Your task to perform on an android device: delete the emails in spam in the gmail app Image 0: 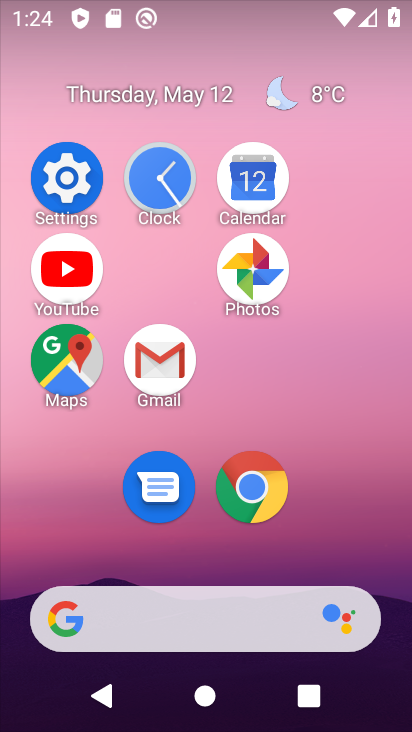
Step 0: click (150, 343)
Your task to perform on an android device: delete the emails in spam in the gmail app Image 1: 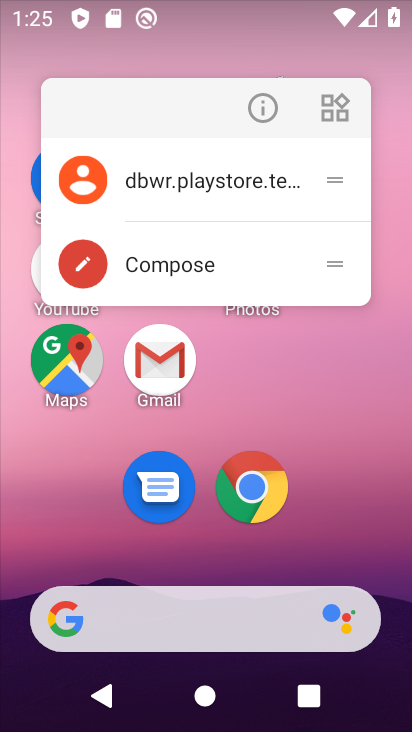
Step 1: click (171, 367)
Your task to perform on an android device: delete the emails in spam in the gmail app Image 2: 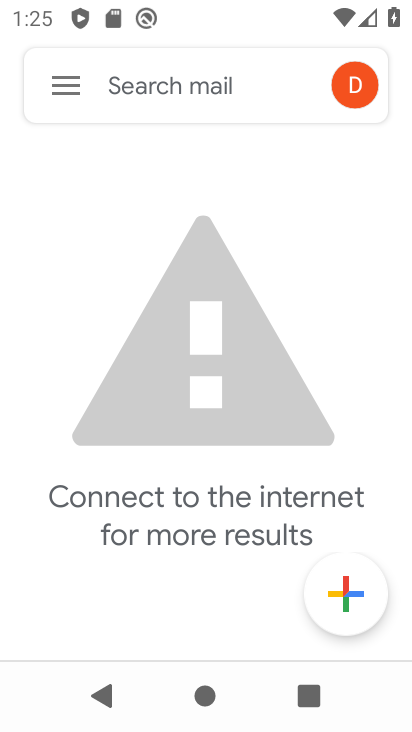
Step 2: click (68, 99)
Your task to perform on an android device: delete the emails in spam in the gmail app Image 3: 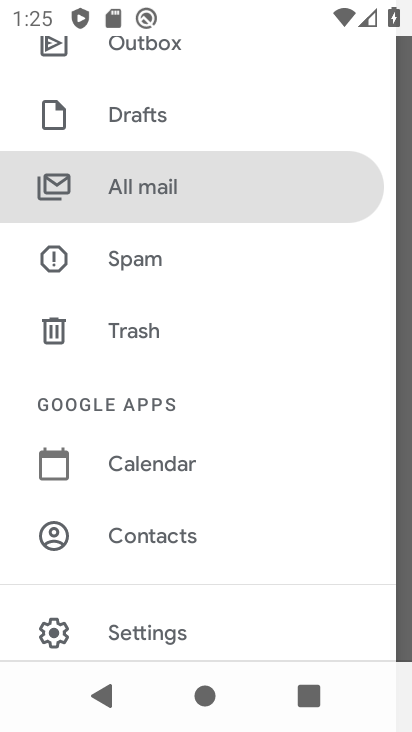
Step 3: click (196, 192)
Your task to perform on an android device: delete the emails in spam in the gmail app Image 4: 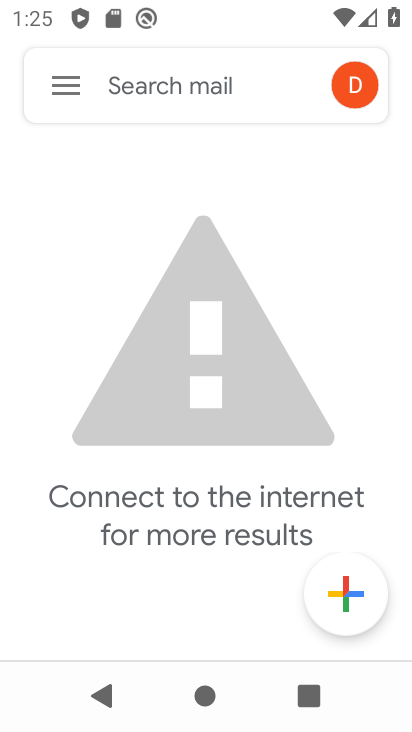
Step 4: task complete